Your task to perform on an android device: turn off location Image 0: 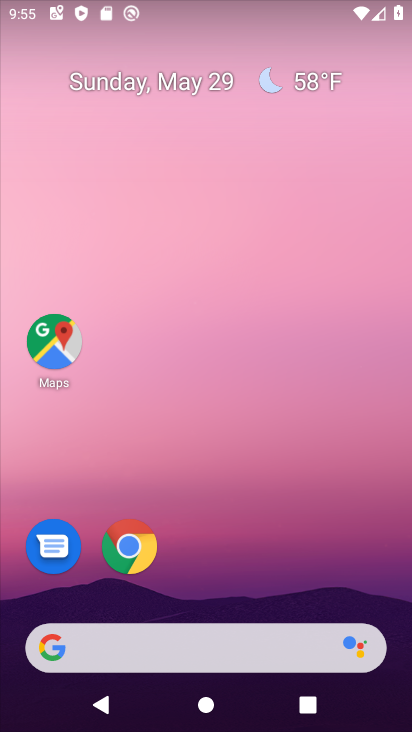
Step 0: drag from (177, 382) to (211, 83)
Your task to perform on an android device: turn off location Image 1: 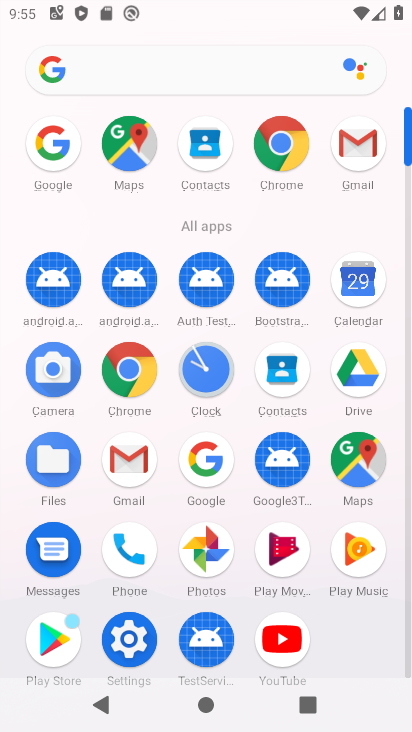
Step 1: drag from (314, 219) to (284, 4)
Your task to perform on an android device: turn off location Image 2: 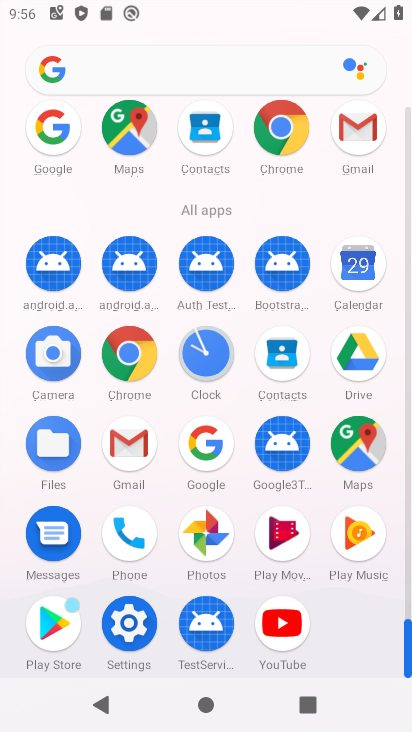
Step 2: click (116, 629)
Your task to perform on an android device: turn off location Image 3: 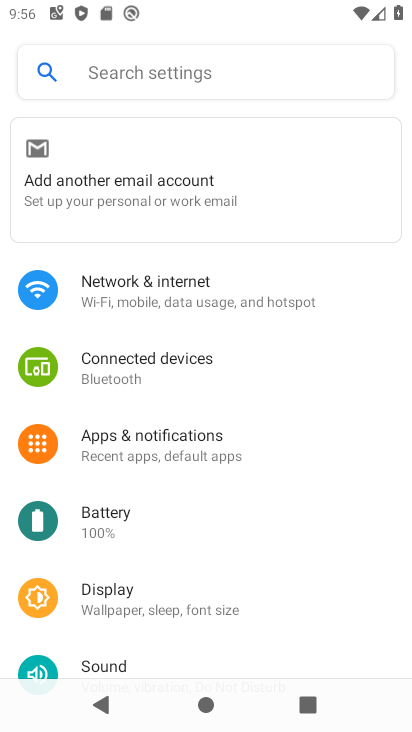
Step 3: drag from (116, 628) to (103, 241)
Your task to perform on an android device: turn off location Image 4: 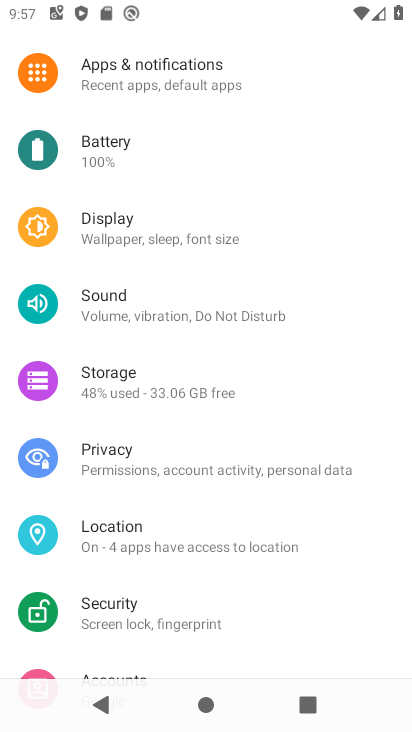
Step 4: click (123, 548)
Your task to perform on an android device: turn off location Image 5: 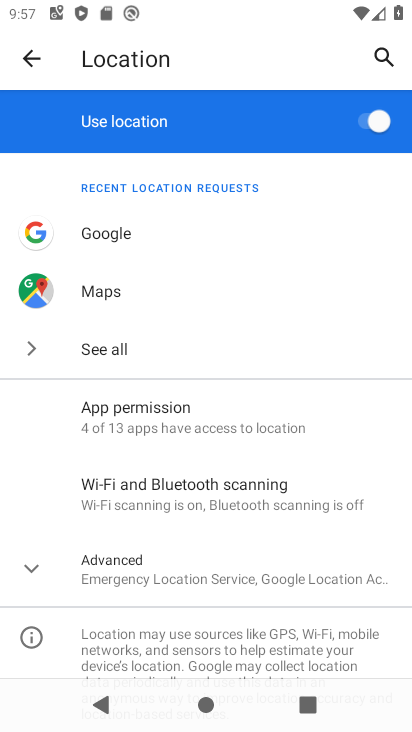
Step 5: click (376, 110)
Your task to perform on an android device: turn off location Image 6: 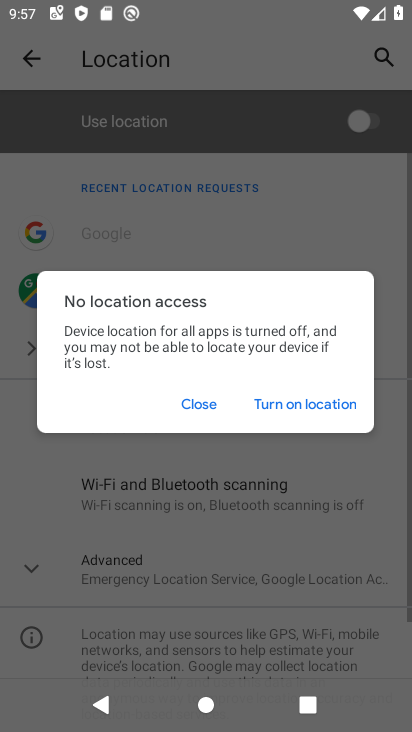
Step 6: task complete